Your task to perform on an android device: Open Youtube and go to the subscriptions tab Image 0: 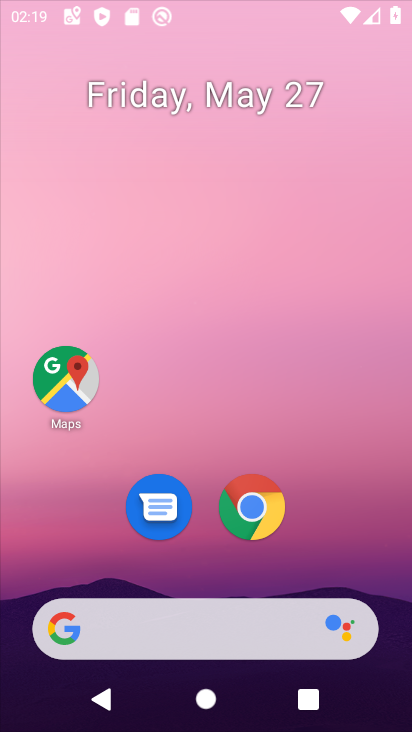
Step 0: click (311, 117)
Your task to perform on an android device: Open Youtube and go to the subscriptions tab Image 1: 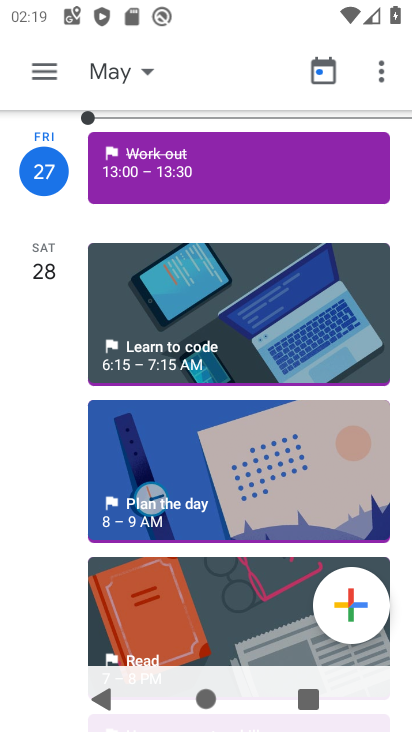
Step 1: press home button
Your task to perform on an android device: Open Youtube and go to the subscriptions tab Image 2: 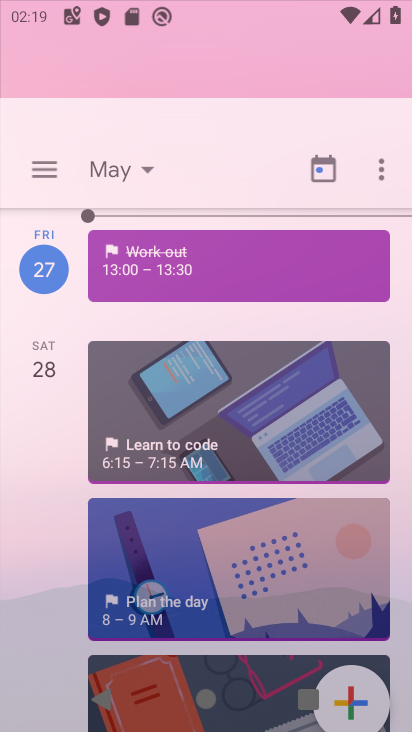
Step 2: drag from (207, 599) to (250, 92)
Your task to perform on an android device: Open Youtube and go to the subscriptions tab Image 3: 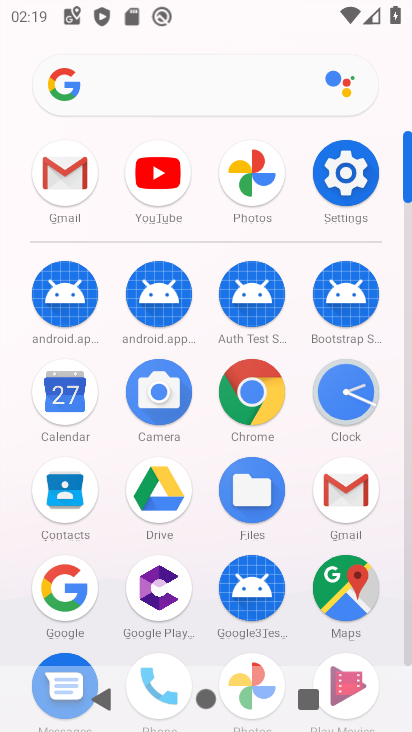
Step 3: drag from (208, 636) to (206, 268)
Your task to perform on an android device: Open Youtube and go to the subscriptions tab Image 4: 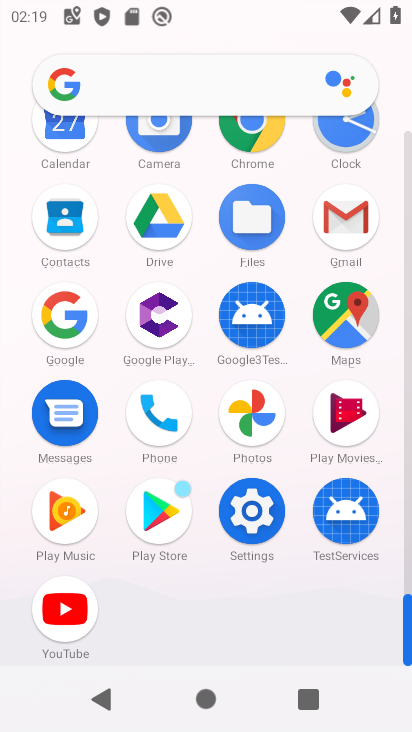
Step 4: click (62, 608)
Your task to perform on an android device: Open Youtube and go to the subscriptions tab Image 5: 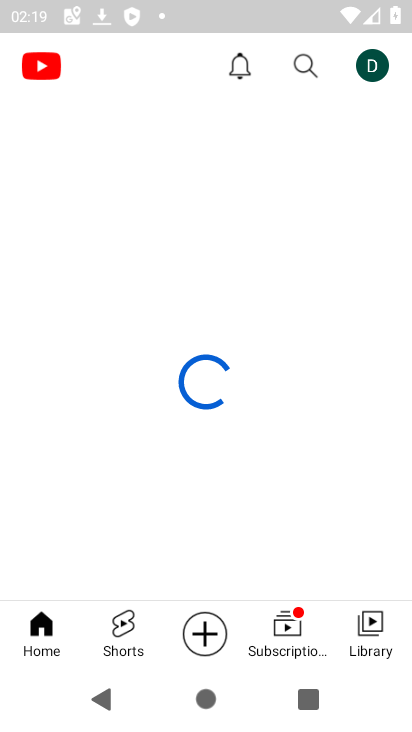
Step 5: click (346, 620)
Your task to perform on an android device: Open Youtube and go to the subscriptions tab Image 6: 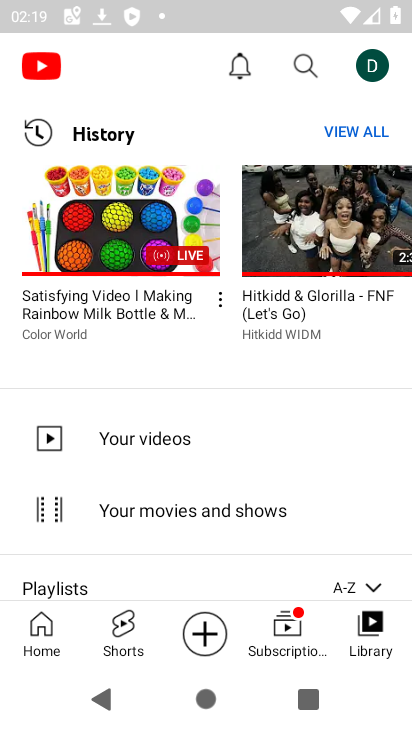
Step 6: click (280, 638)
Your task to perform on an android device: Open Youtube and go to the subscriptions tab Image 7: 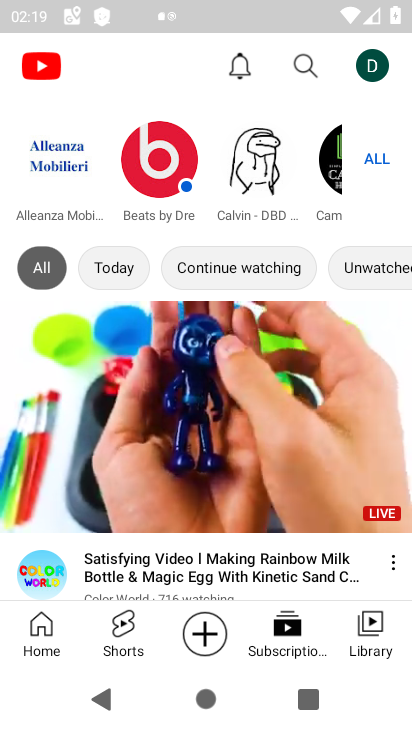
Step 7: task complete